Your task to perform on an android device: toggle sleep mode Image 0: 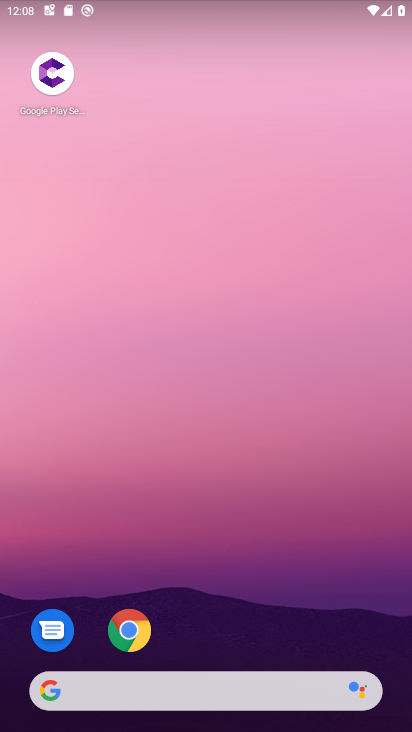
Step 0: drag from (216, 642) to (291, 47)
Your task to perform on an android device: toggle sleep mode Image 1: 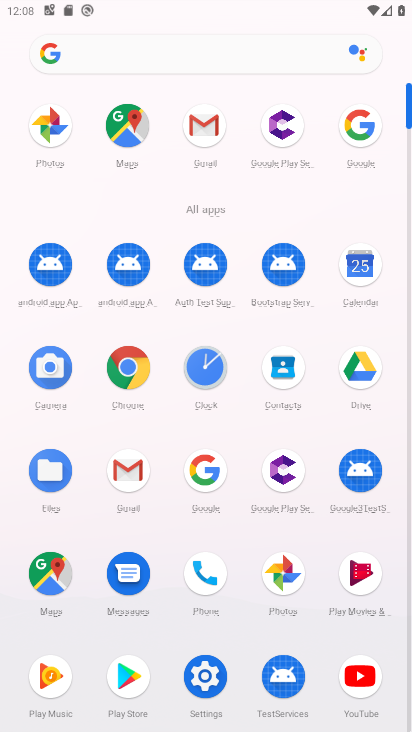
Step 1: click (202, 680)
Your task to perform on an android device: toggle sleep mode Image 2: 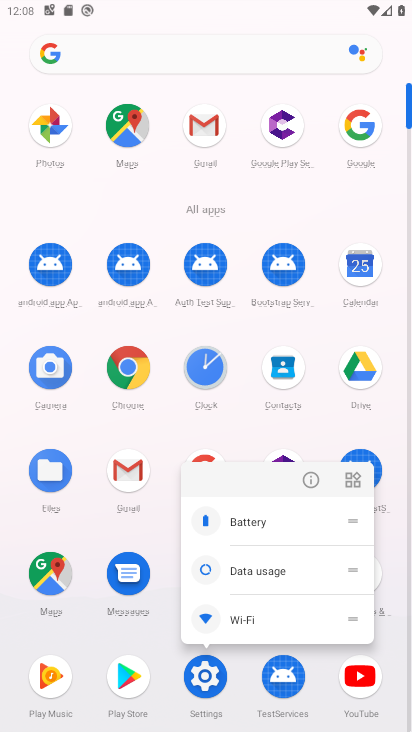
Step 2: click (317, 489)
Your task to perform on an android device: toggle sleep mode Image 3: 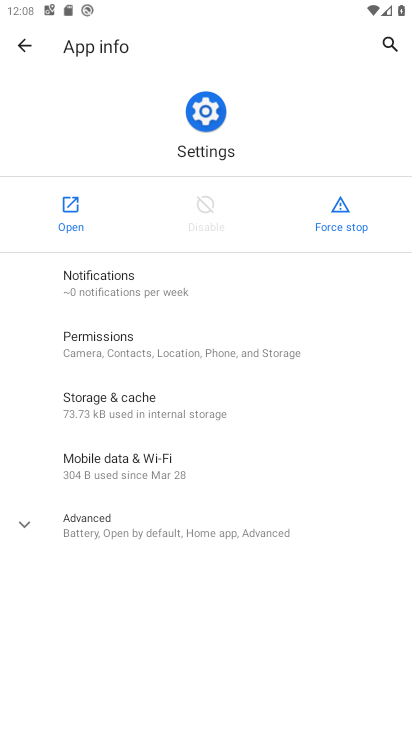
Step 3: click (65, 212)
Your task to perform on an android device: toggle sleep mode Image 4: 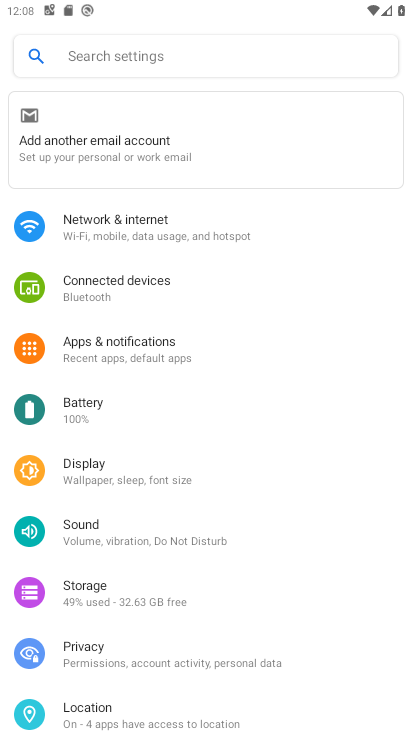
Step 4: click (123, 479)
Your task to perform on an android device: toggle sleep mode Image 5: 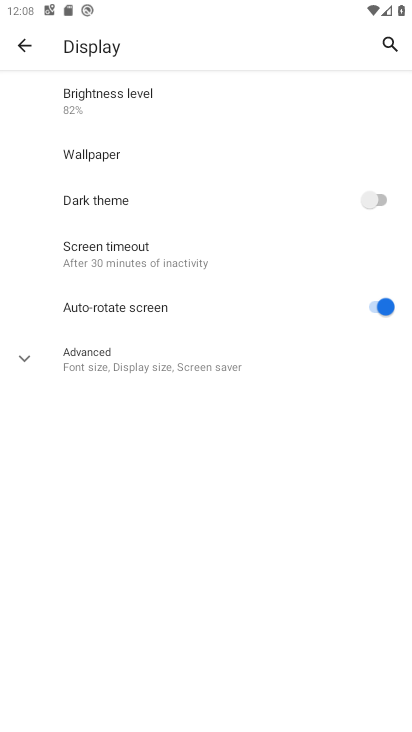
Step 5: click (179, 239)
Your task to perform on an android device: toggle sleep mode Image 6: 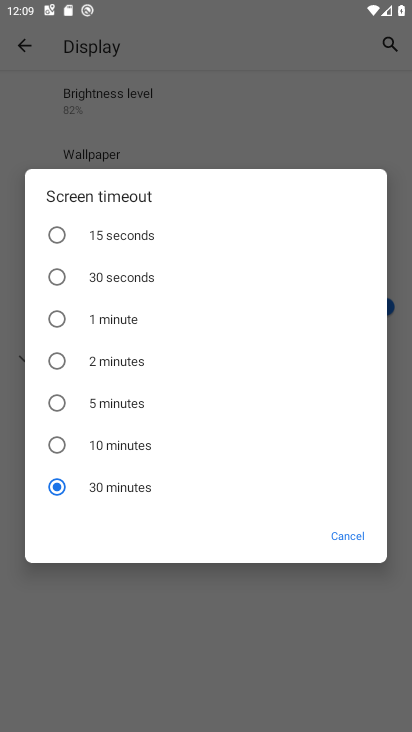
Step 6: task complete